Your task to perform on an android device: Go to Yahoo.com Image 0: 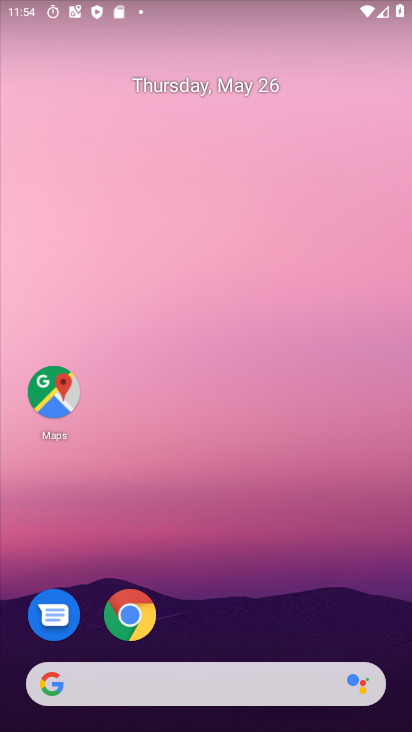
Step 0: drag from (219, 612) to (171, 111)
Your task to perform on an android device: Go to Yahoo.com Image 1: 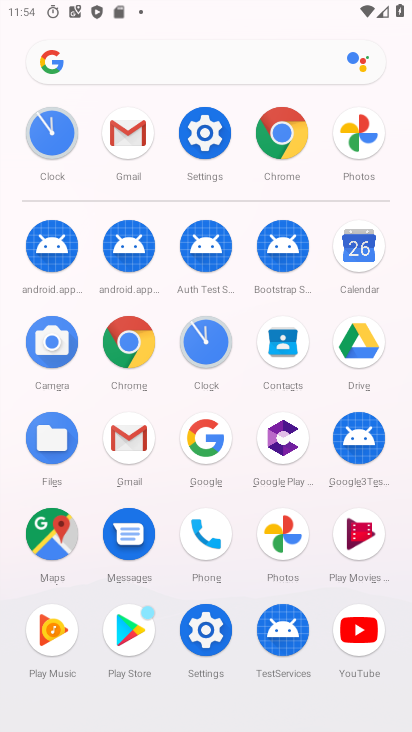
Step 1: click (264, 135)
Your task to perform on an android device: Go to Yahoo.com Image 2: 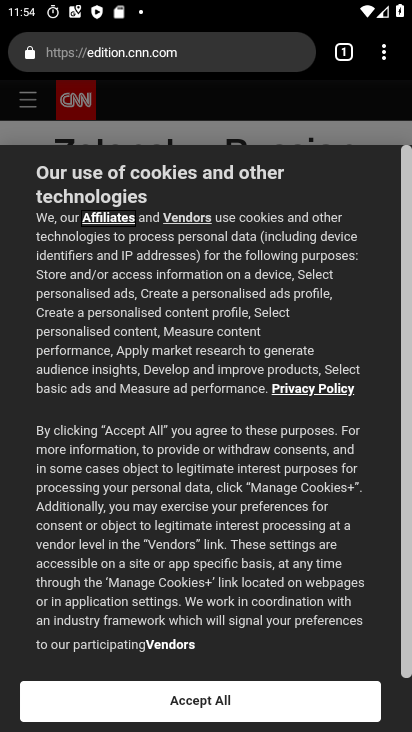
Step 2: click (216, 61)
Your task to perform on an android device: Go to Yahoo.com Image 3: 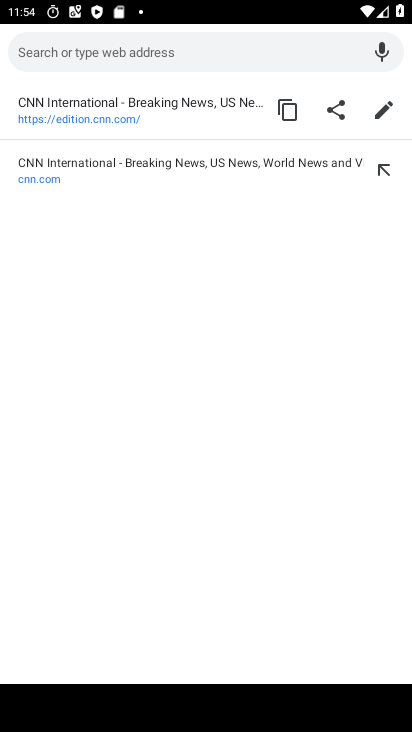
Step 3: type "yahoo.com"
Your task to perform on an android device: Go to Yahoo.com Image 4: 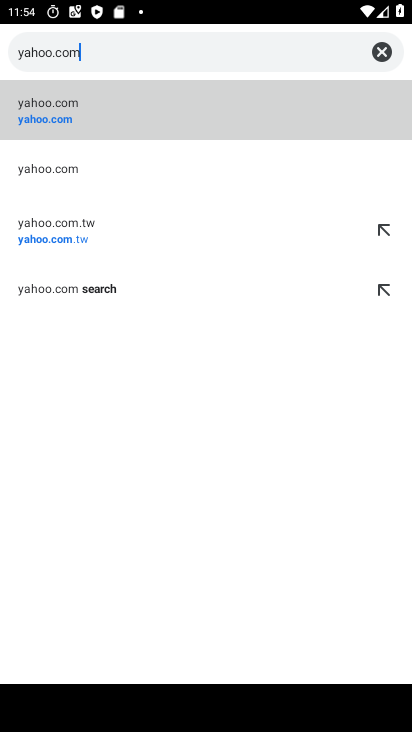
Step 4: click (46, 117)
Your task to perform on an android device: Go to Yahoo.com Image 5: 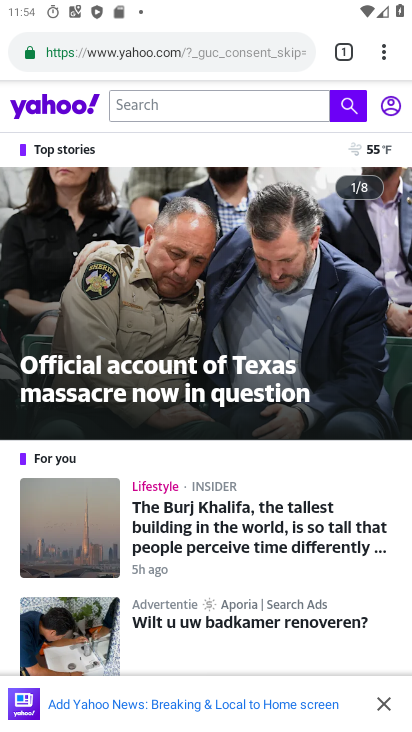
Step 5: task complete